Your task to perform on an android device: turn on improve location accuracy Image 0: 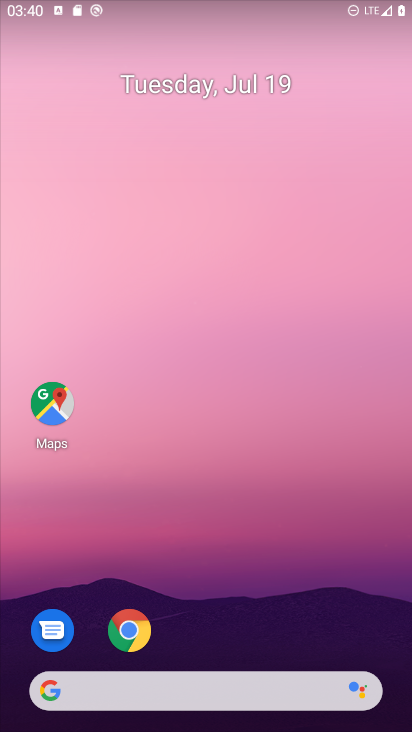
Step 0: drag from (362, 629) to (319, 69)
Your task to perform on an android device: turn on improve location accuracy Image 1: 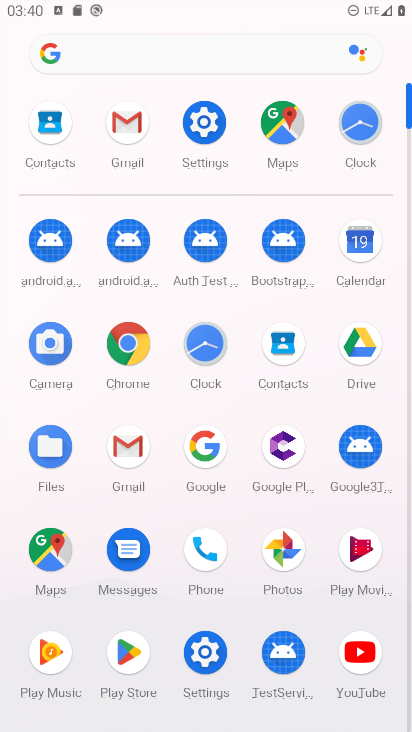
Step 1: click (203, 649)
Your task to perform on an android device: turn on improve location accuracy Image 2: 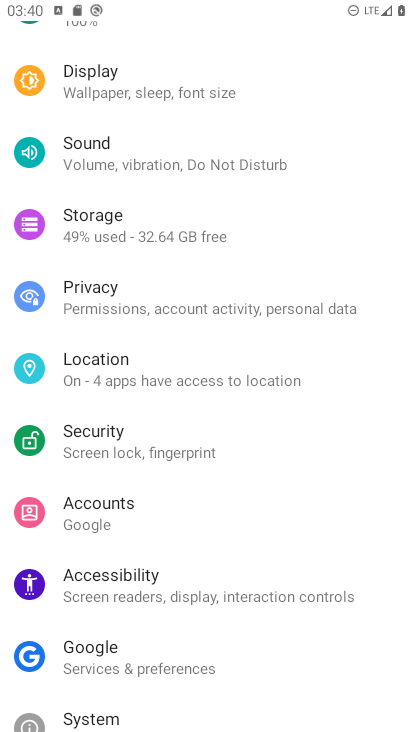
Step 2: click (111, 358)
Your task to perform on an android device: turn on improve location accuracy Image 3: 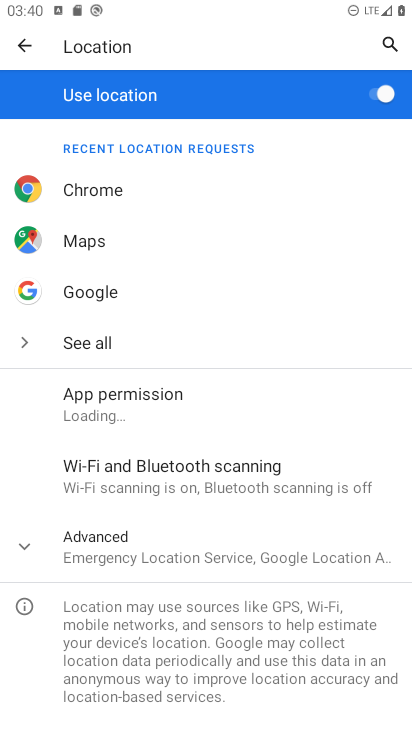
Step 3: click (35, 556)
Your task to perform on an android device: turn on improve location accuracy Image 4: 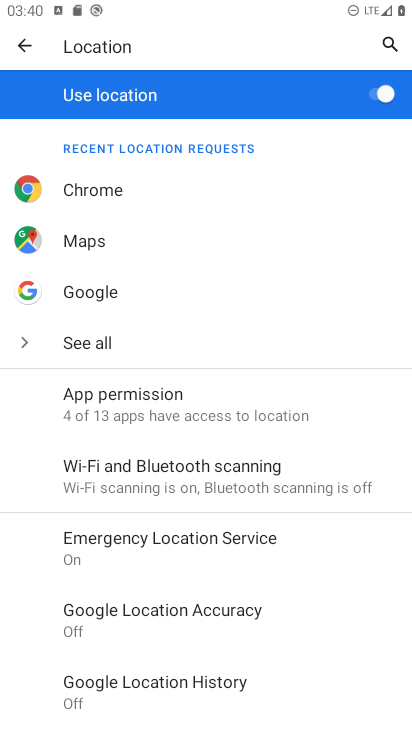
Step 4: click (166, 614)
Your task to perform on an android device: turn on improve location accuracy Image 5: 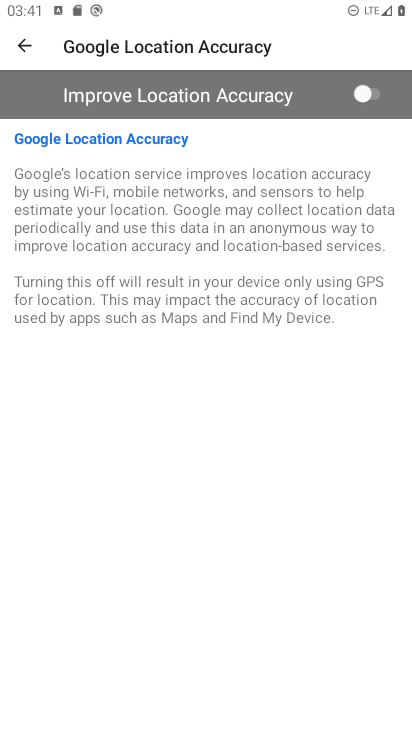
Step 5: click (371, 91)
Your task to perform on an android device: turn on improve location accuracy Image 6: 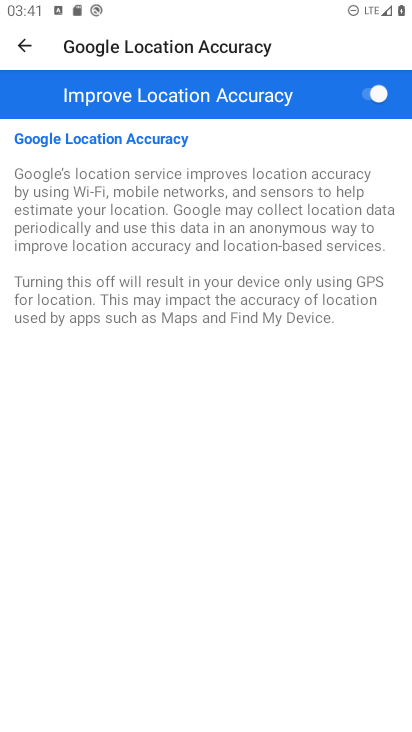
Step 6: task complete